Your task to perform on an android device: Go to Google Image 0: 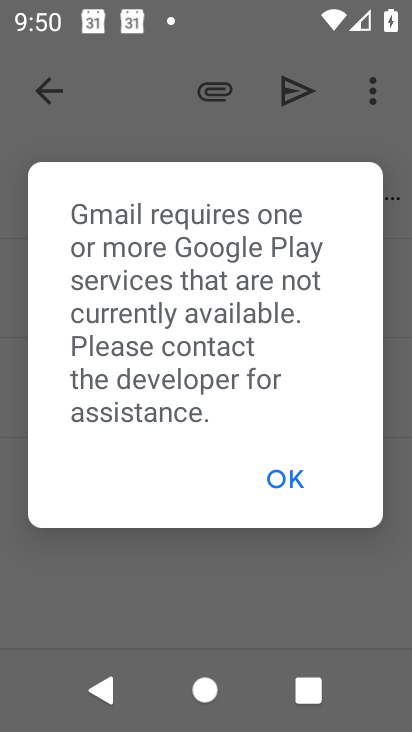
Step 0: press home button
Your task to perform on an android device: Go to Google Image 1: 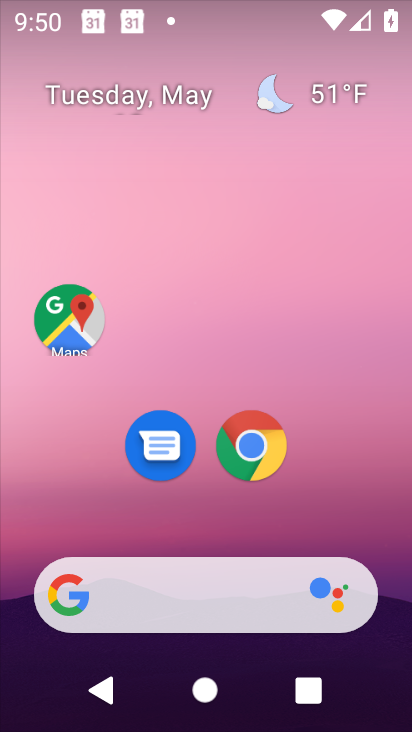
Step 1: drag from (177, 574) to (146, 82)
Your task to perform on an android device: Go to Google Image 2: 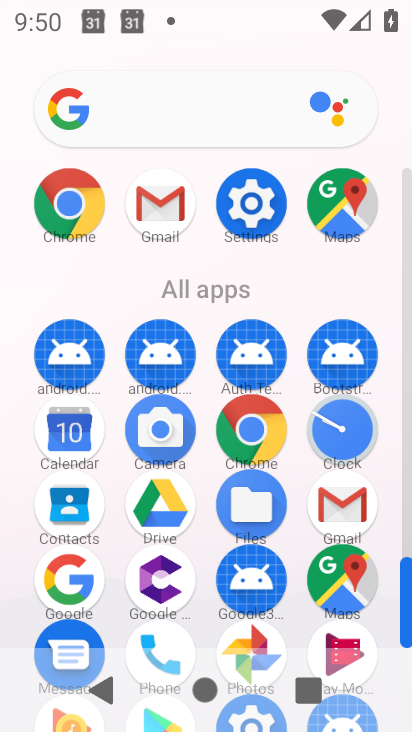
Step 2: click (78, 574)
Your task to perform on an android device: Go to Google Image 3: 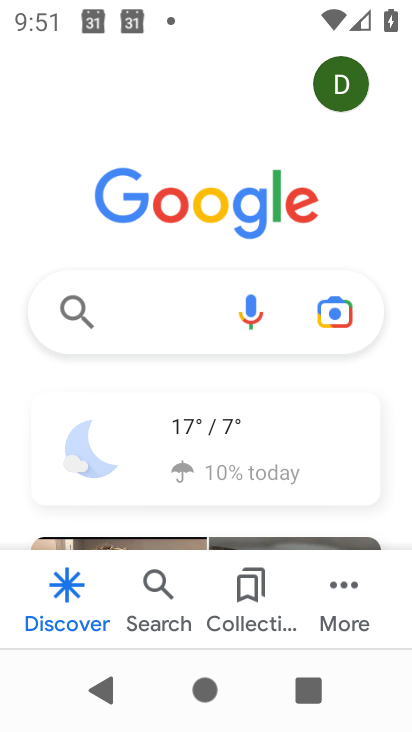
Step 3: task complete